Your task to perform on an android device: Turn on notifications for the Google Maps app Image 0: 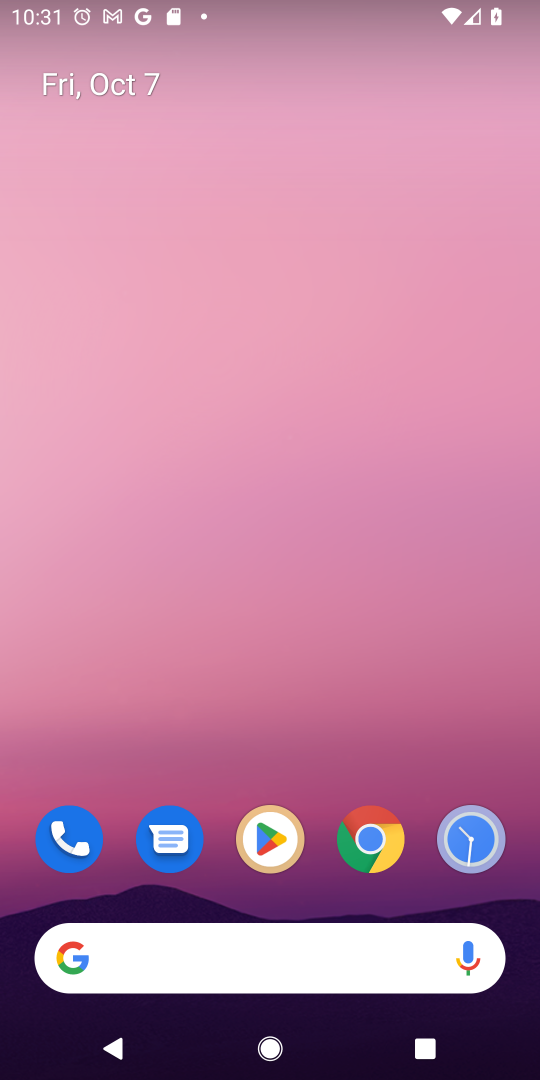
Step 0: click (380, 846)
Your task to perform on an android device: Turn on notifications for the Google Maps app Image 1: 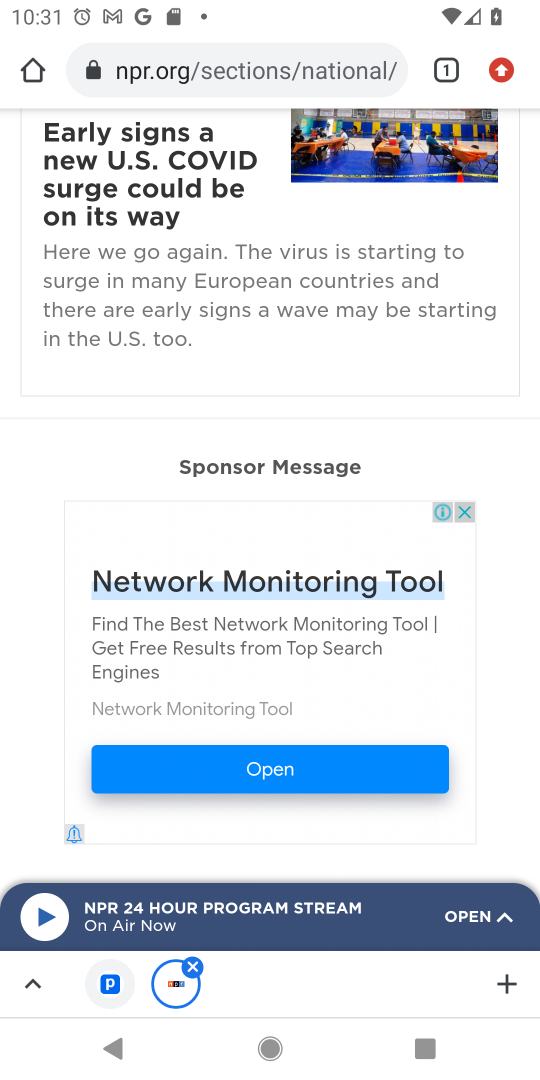
Step 1: click (248, 67)
Your task to perform on an android device: Turn on notifications for the Google Maps app Image 2: 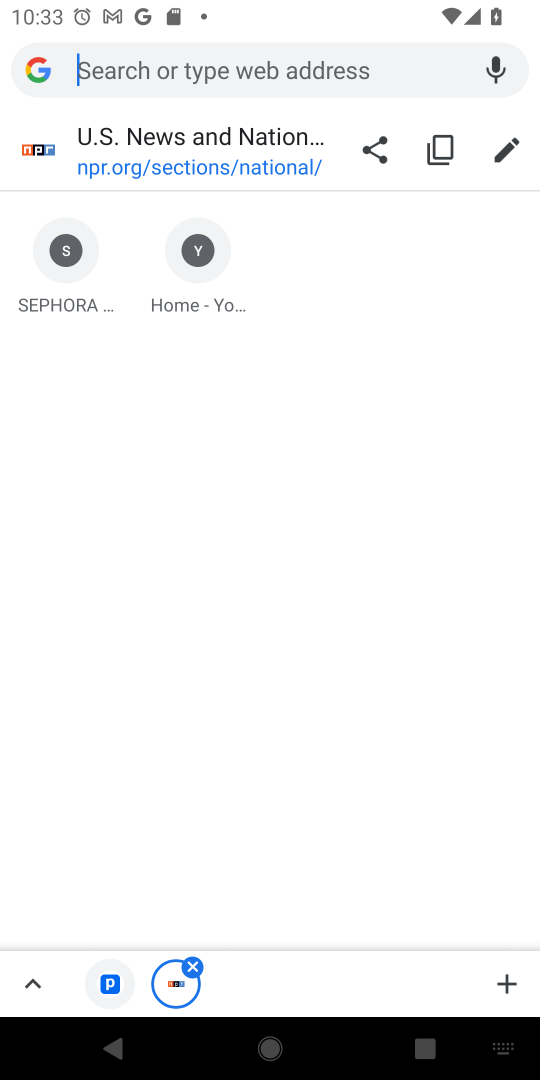
Step 2: click (193, 140)
Your task to perform on an android device: Turn on notifications for the Google Maps app Image 3: 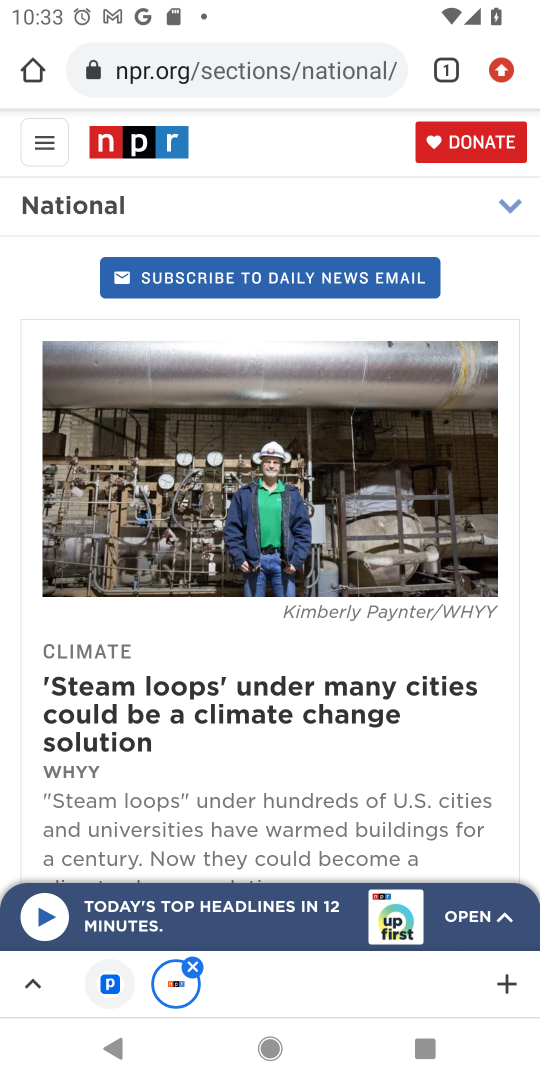
Step 3: click (217, 60)
Your task to perform on an android device: Turn on notifications for the Google Maps app Image 4: 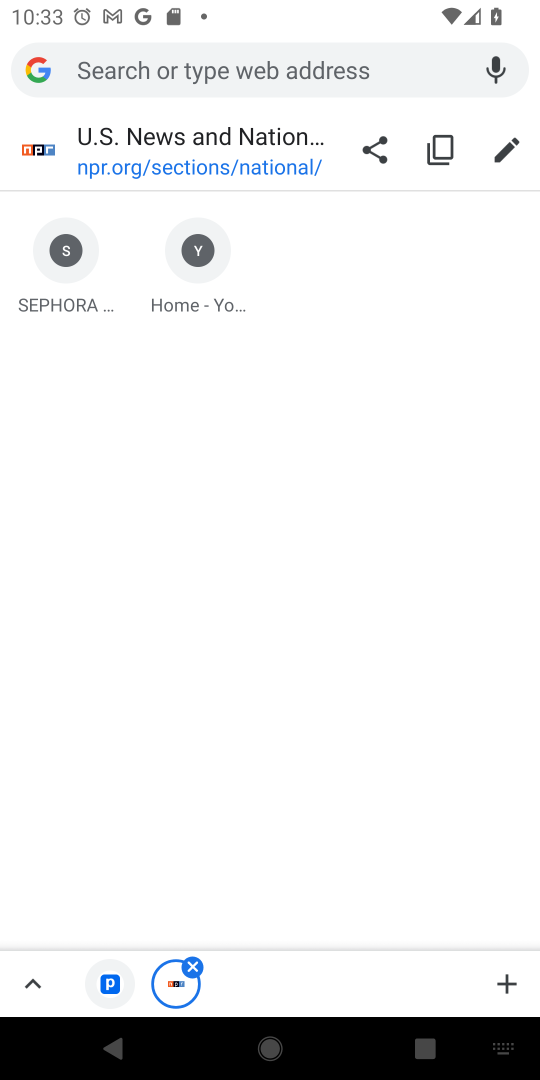
Step 4: type "google map"
Your task to perform on an android device: Turn on notifications for the Google Maps app Image 5: 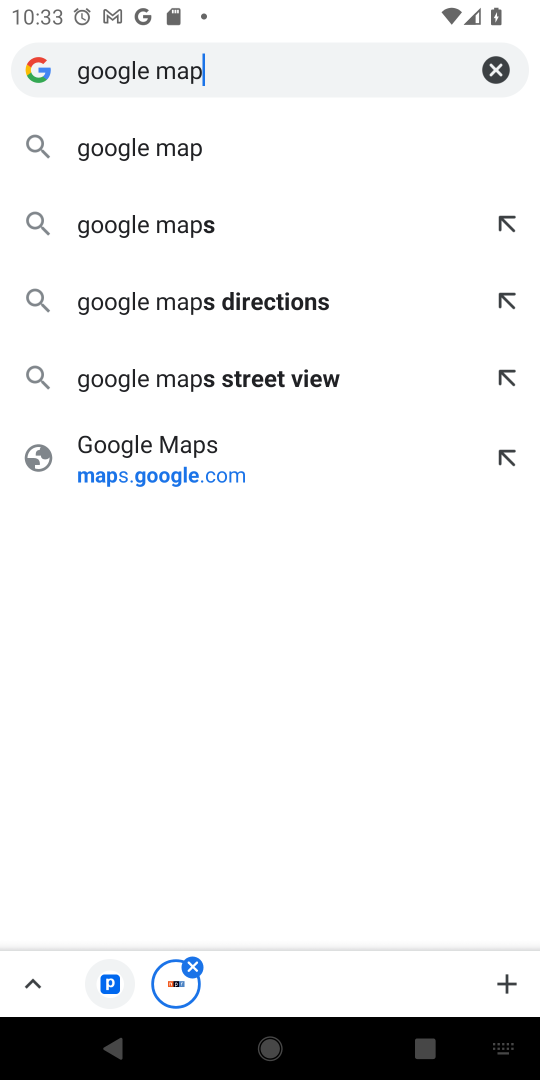
Step 5: click (158, 471)
Your task to perform on an android device: Turn on notifications for the Google Maps app Image 6: 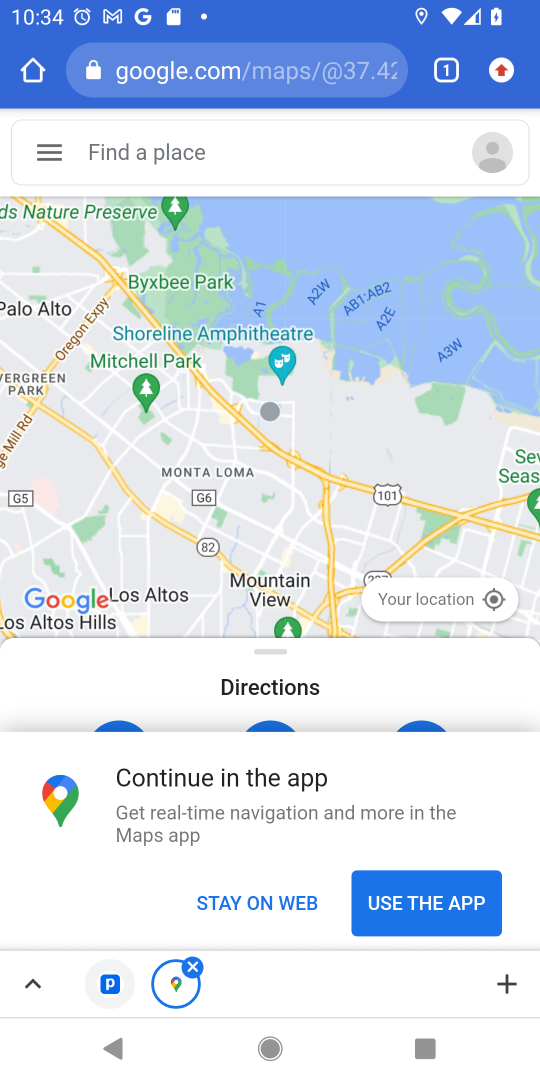
Step 6: click (30, 148)
Your task to perform on an android device: Turn on notifications for the Google Maps app Image 7: 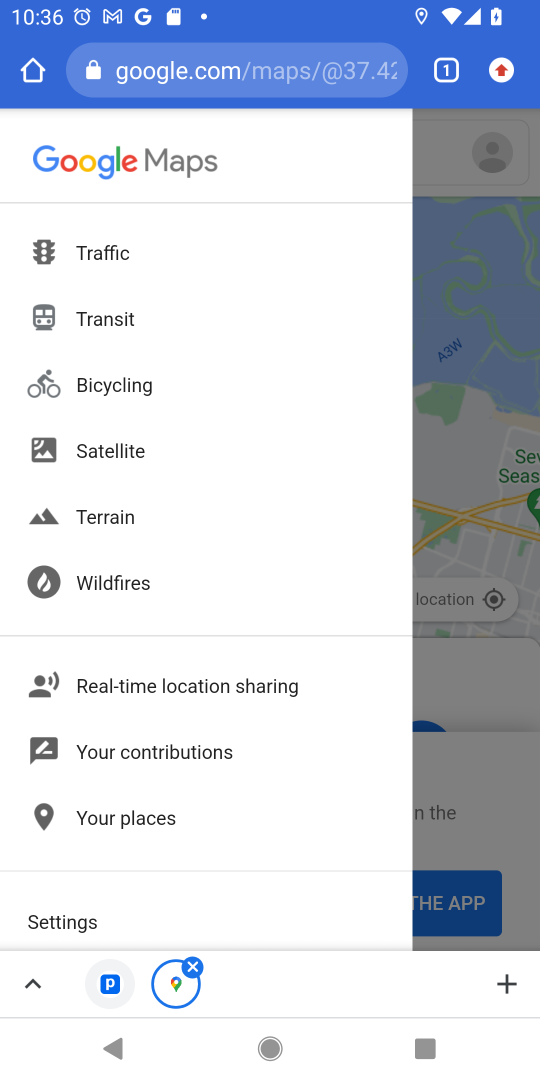
Step 7: drag from (105, 879) to (217, 520)
Your task to perform on an android device: Turn on notifications for the Google Maps app Image 8: 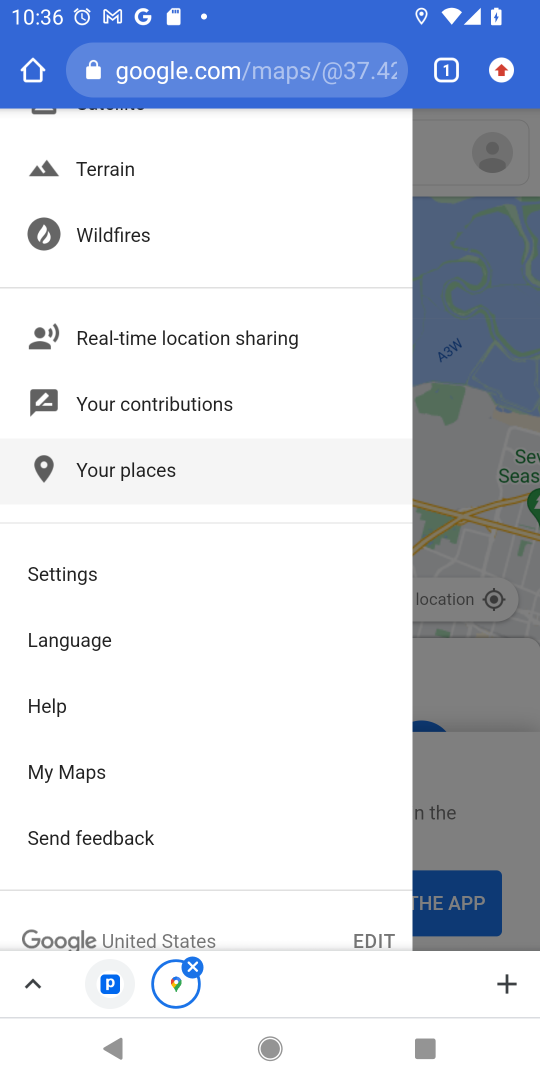
Step 8: drag from (136, 779) to (197, 507)
Your task to perform on an android device: Turn on notifications for the Google Maps app Image 9: 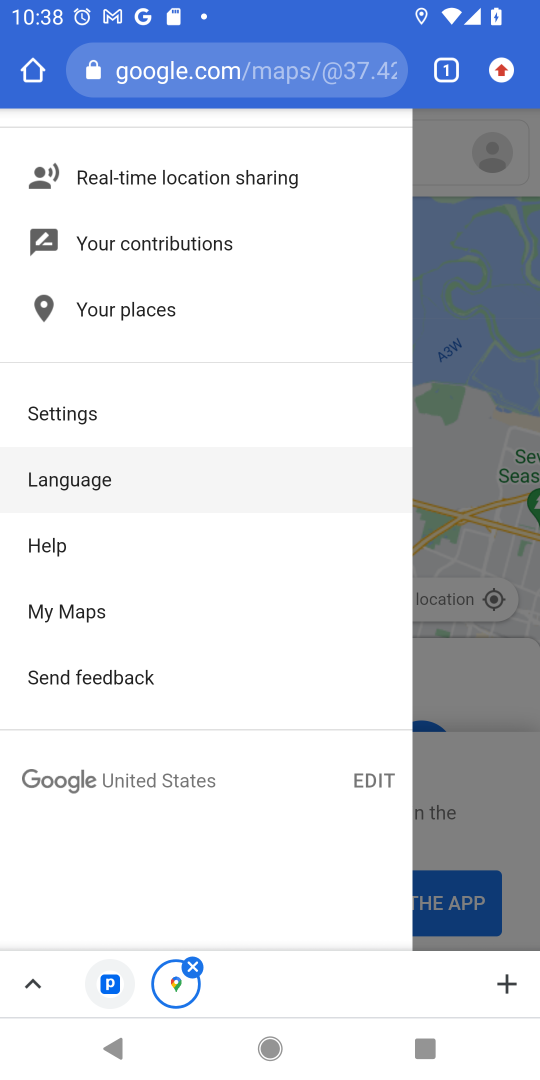
Step 9: click (509, 69)
Your task to perform on an android device: Turn on notifications for the Google Maps app Image 10: 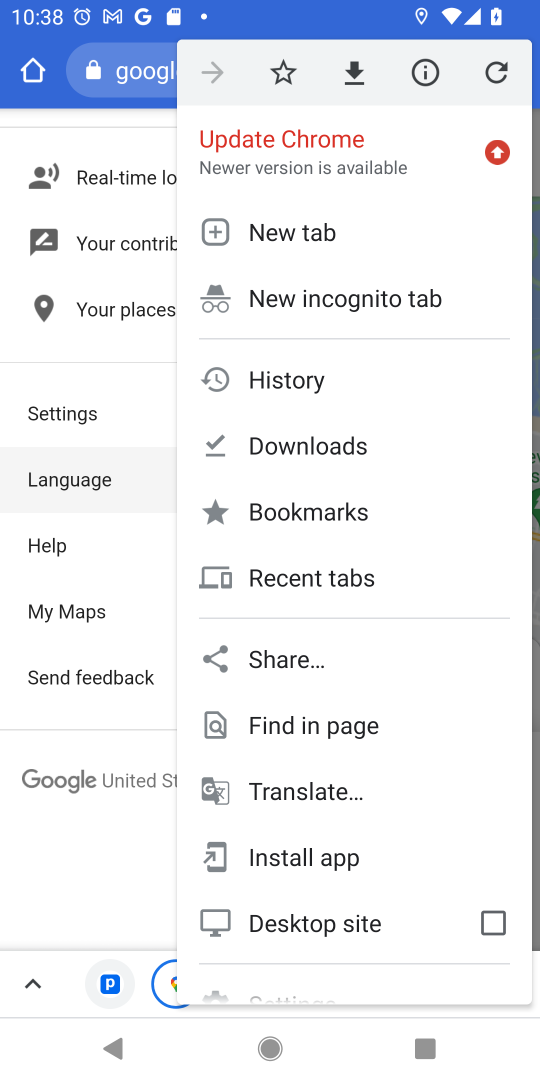
Step 10: task complete